Your task to perform on an android device: turn off sleep mode Image 0: 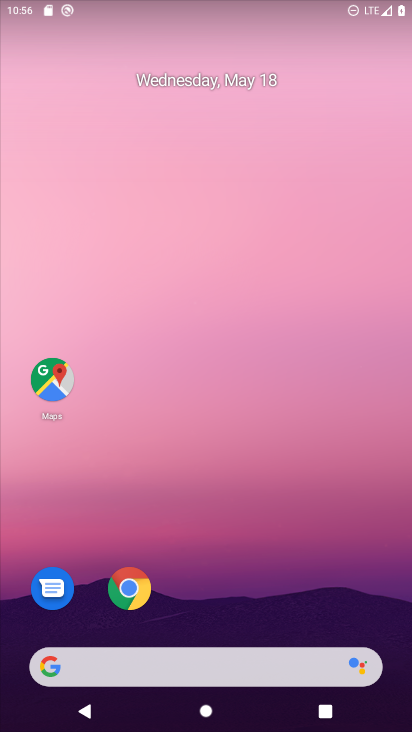
Step 0: drag from (228, 615) to (334, 1)
Your task to perform on an android device: turn off sleep mode Image 1: 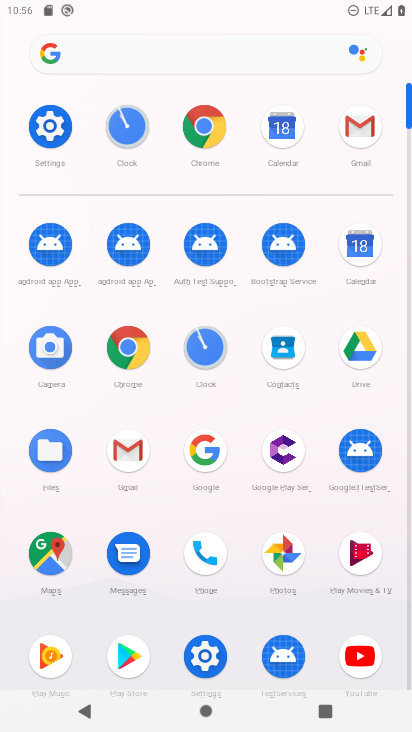
Step 1: click (36, 128)
Your task to perform on an android device: turn off sleep mode Image 2: 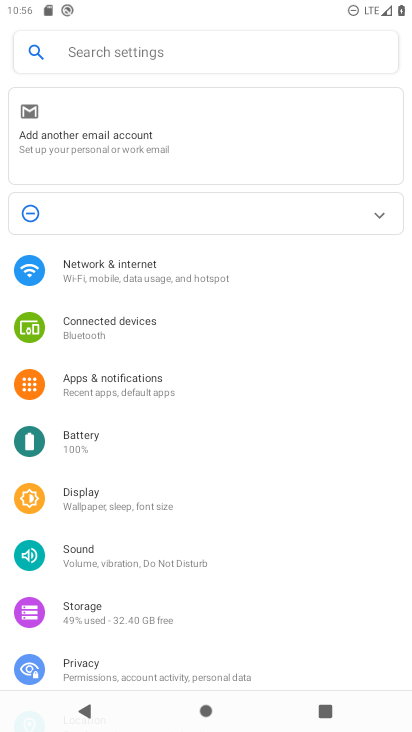
Step 2: click (80, 503)
Your task to perform on an android device: turn off sleep mode Image 3: 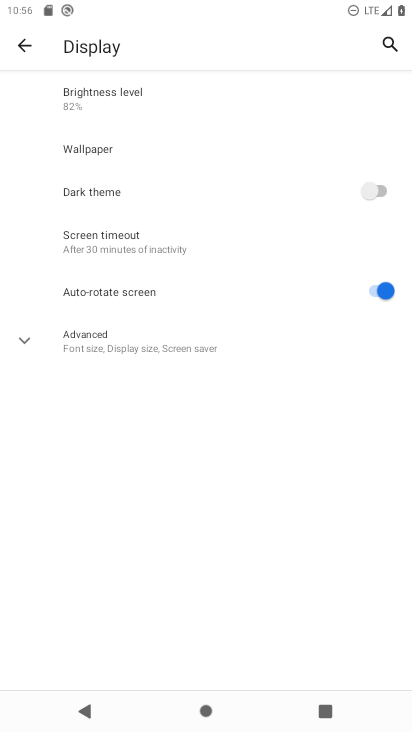
Step 3: click (17, 339)
Your task to perform on an android device: turn off sleep mode Image 4: 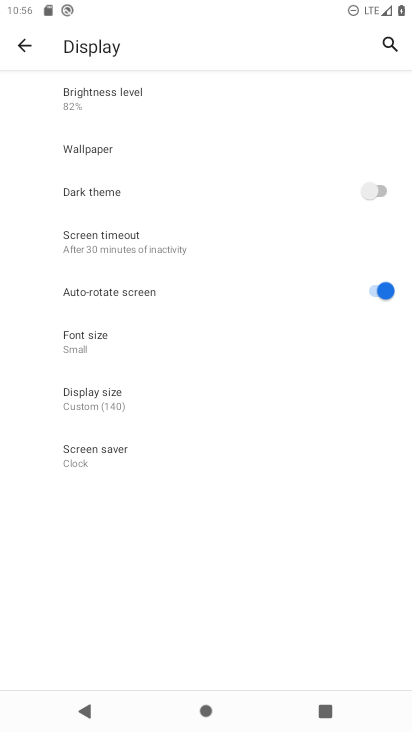
Step 4: task complete